Your task to perform on an android device: Open my contact list Image 0: 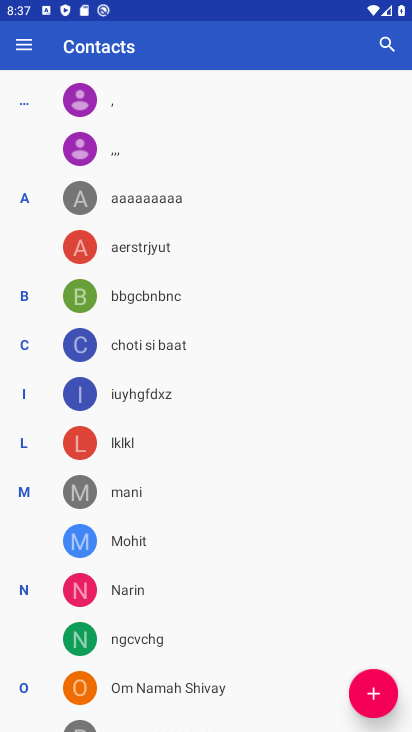
Step 0: click (364, 681)
Your task to perform on an android device: Open my contact list Image 1: 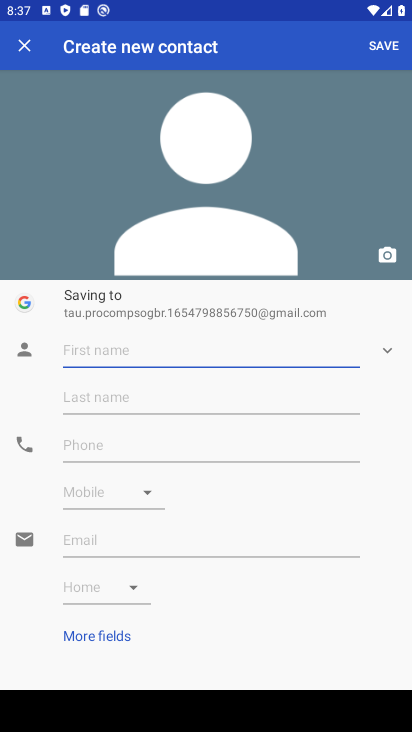
Step 1: type "bhdbfkshda"
Your task to perform on an android device: Open my contact list Image 2: 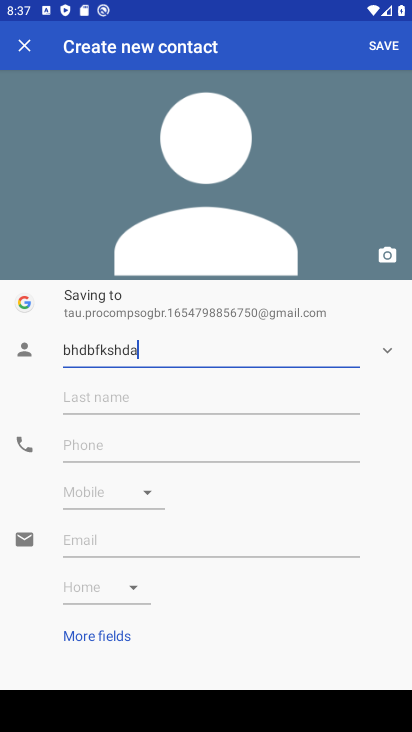
Step 2: click (205, 398)
Your task to perform on an android device: Open my contact list Image 3: 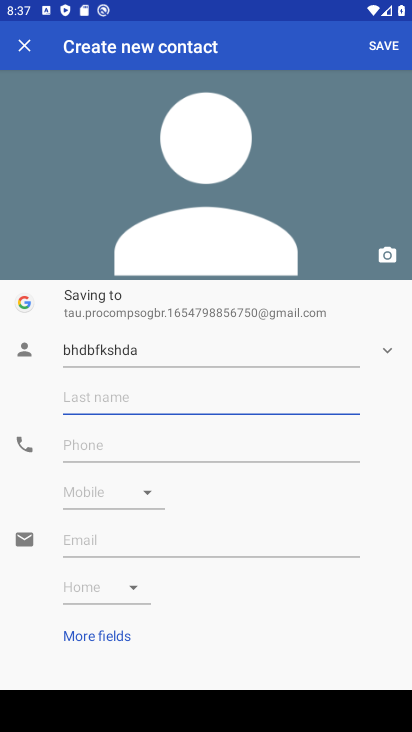
Step 3: type "cajdbgabfugabhsd"
Your task to perform on an android device: Open my contact list Image 4: 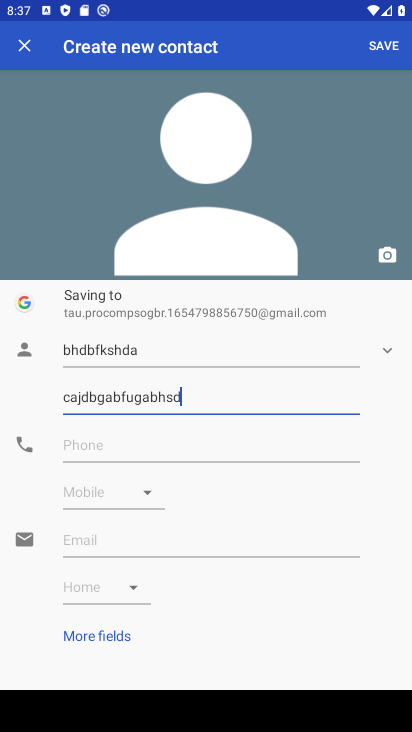
Step 4: click (118, 453)
Your task to perform on an android device: Open my contact list Image 5: 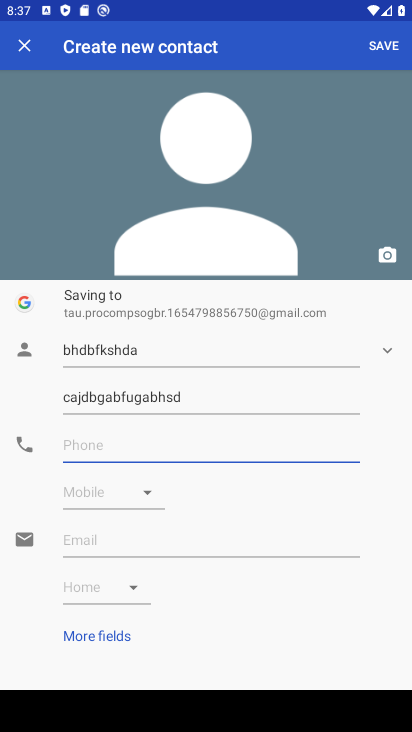
Step 5: type "477627365757555"
Your task to perform on an android device: Open my contact list Image 6: 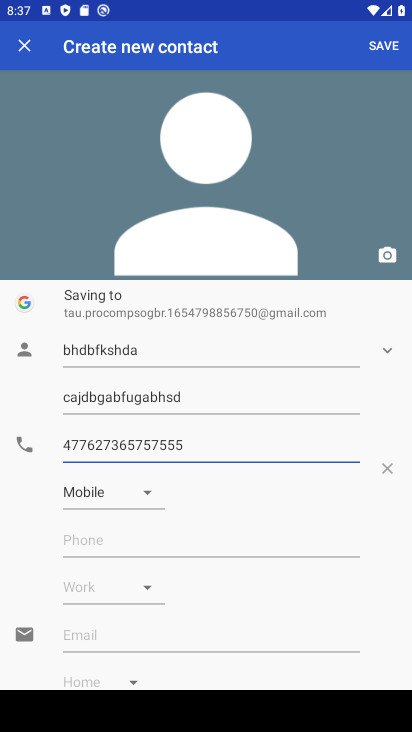
Step 6: click (372, 45)
Your task to perform on an android device: Open my contact list Image 7: 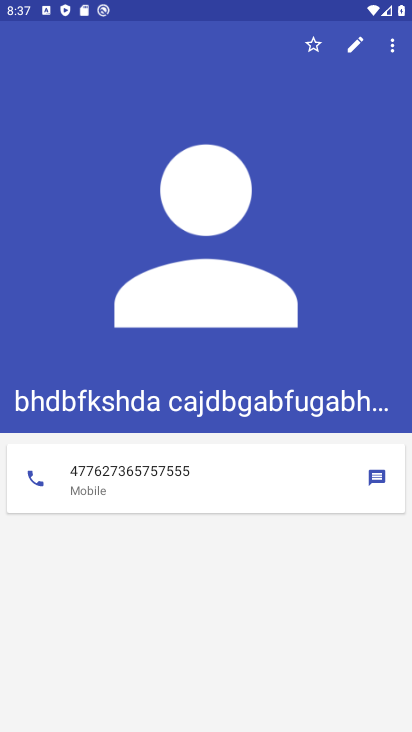
Step 7: task complete